Your task to perform on an android device: Open Maps and search for coffee Image 0: 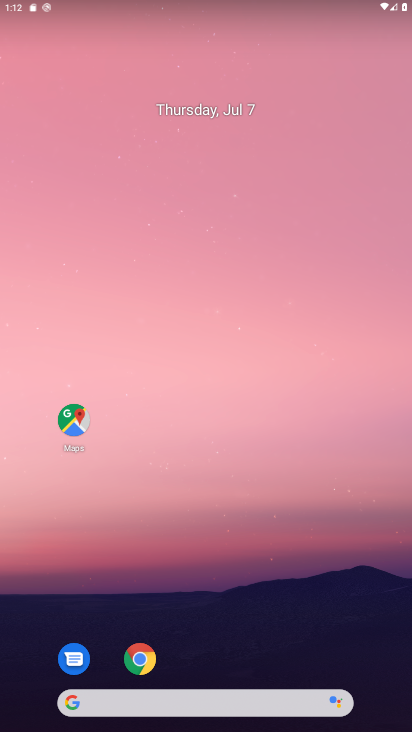
Step 0: drag from (240, 661) to (281, 416)
Your task to perform on an android device: Open Maps and search for coffee Image 1: 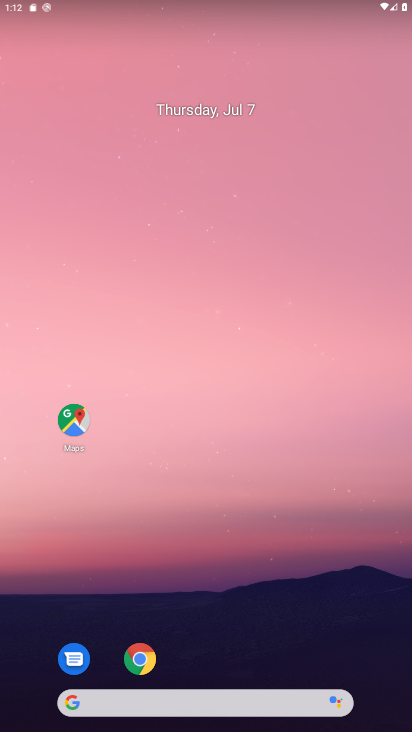
Step 1: drag from (243, 513) to (265, 241)
Your task to perform on an android device: Open Maps and search for coffee Image 2: 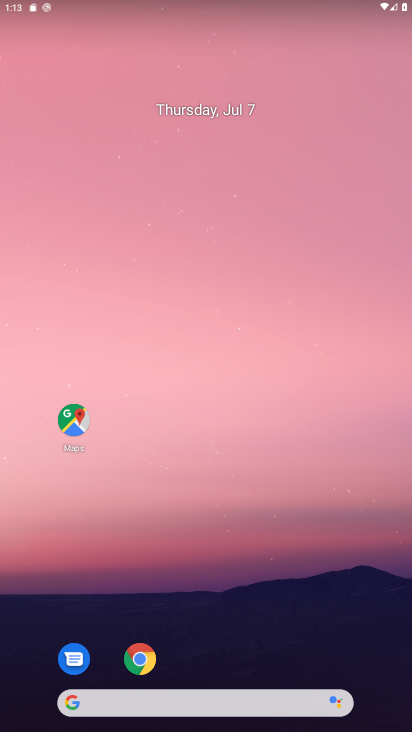
Step 2: drag from (203, 598) to (292, 15)
Your task to perform on an android device: Open Maps and search for coffee Image 3: 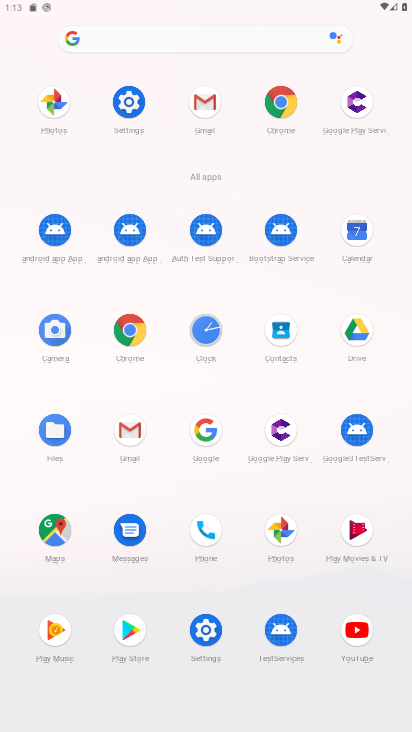
Step 3: click (56, 533)
Your task to perform on an android device: Open Maps and search for coffee Image 4: 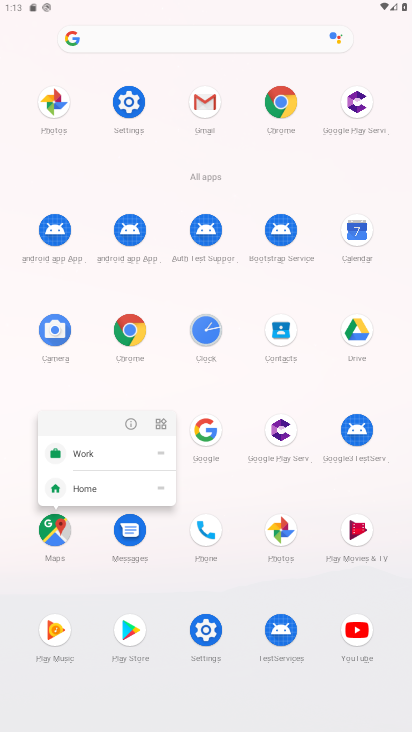
Step 4: click (127, 426)
Your task to perform on an android device: Open Maps and search for coffee Image 5: 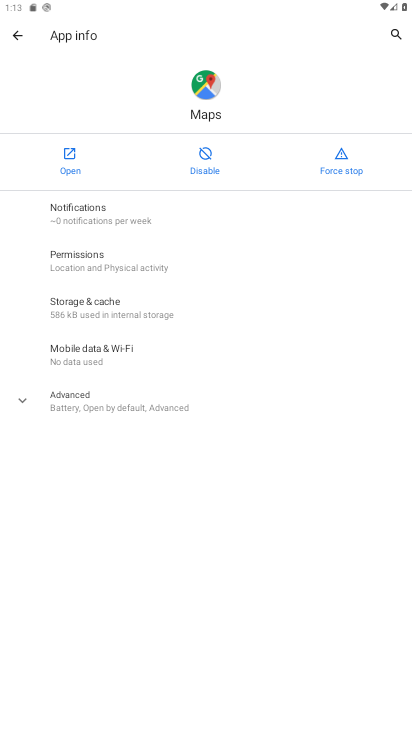
Step 5: click (65, 163)
Your task to perform on an android device: Open Maps and search for coffee Image 6: 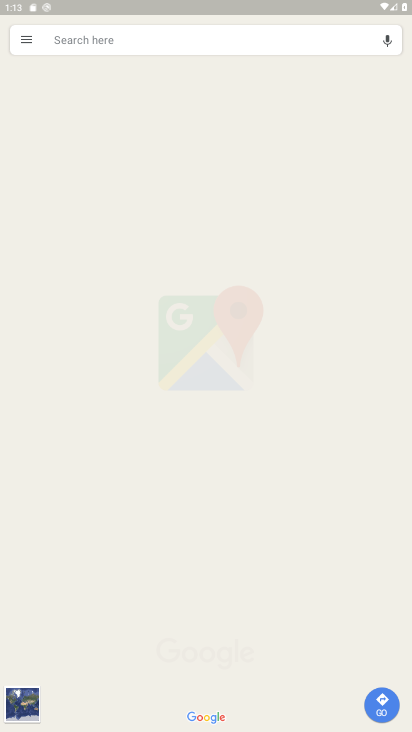
Step 6: drag from (201, 501) to (246, 316)
Your task to perform on an android device: Open Maps and search for coffee Image 7: 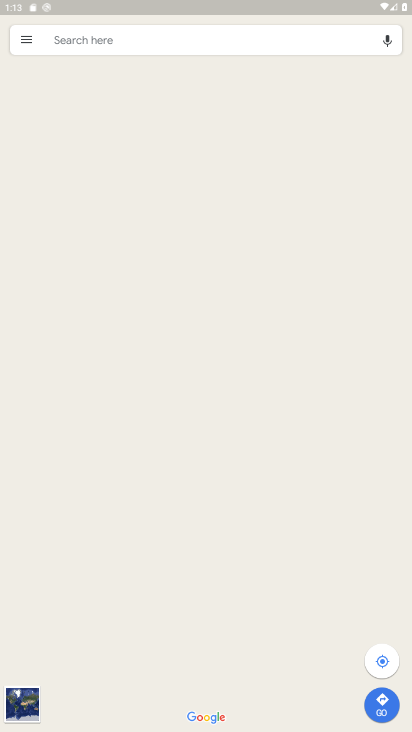
Step 7: click (74, 45)
Your task to perform on an android device: Open Maps and search for coffee Image 8: 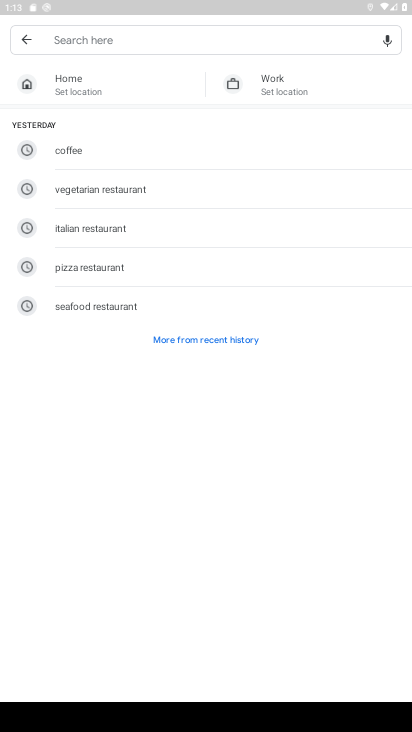
Step 8: click (25, 47)
Your task to perform on an android device: Open Maps and search for coffee Image 9: 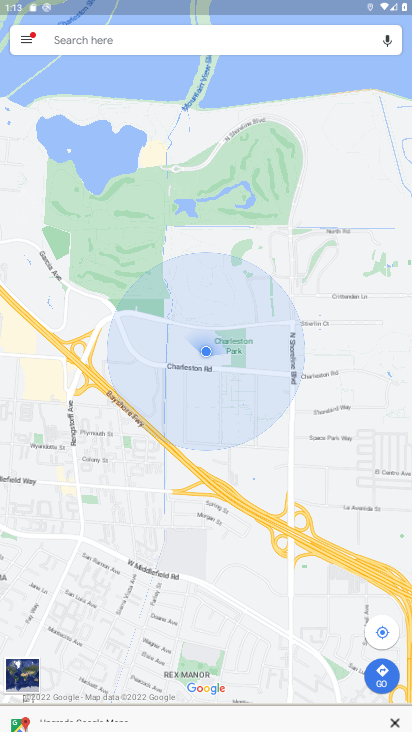
Step 9: click (93, 39)
Your task to perform on an android device: Open Maps and search for coffee Image 10: 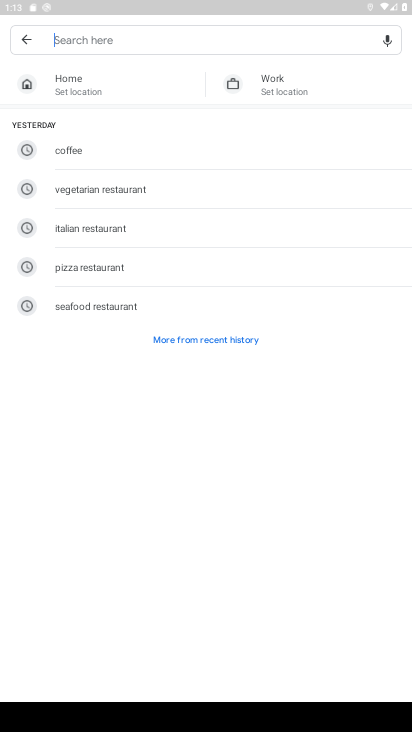
Step 10: click (76, 153)
Your task to perform on an android device: Open Maps and search for coffee Image 11: 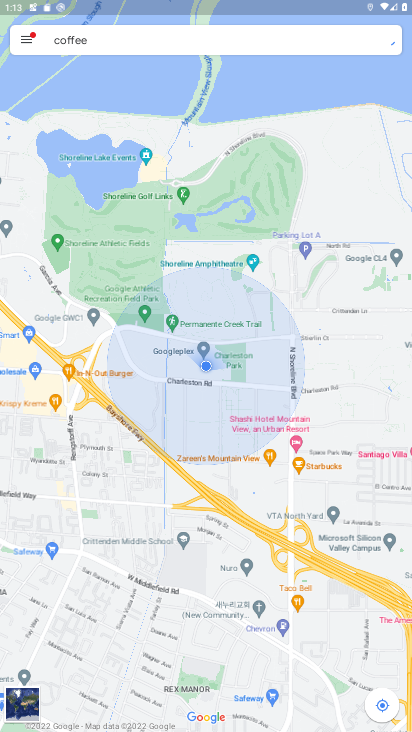
Step 11: task complete